Your task to perform on an android device: set the stopwatch Image 0: 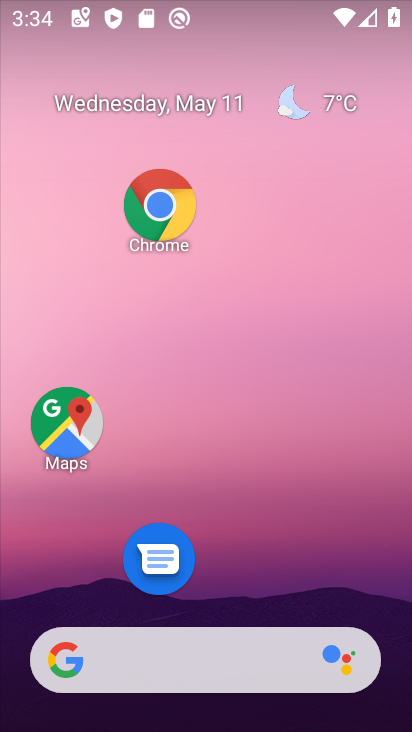
Step 0: drag from (237, 505) to (285, 229)
Your task to perform on an android device: set the stopwatch Image 1: 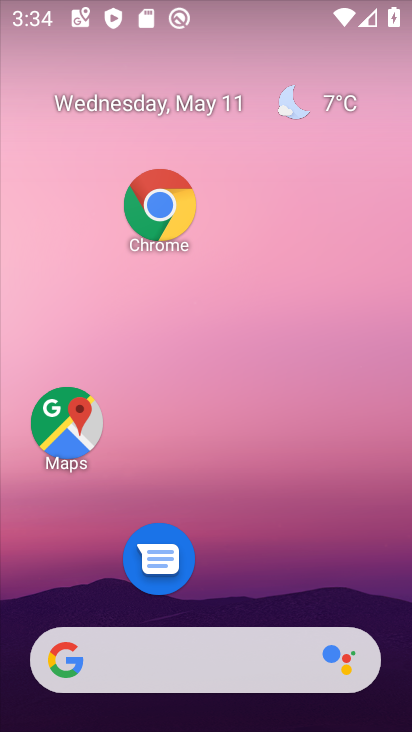
Step 1: drag from (214, 642) to (273, 144)
Your task to perform on an android device: set the stopwatch Image 2: 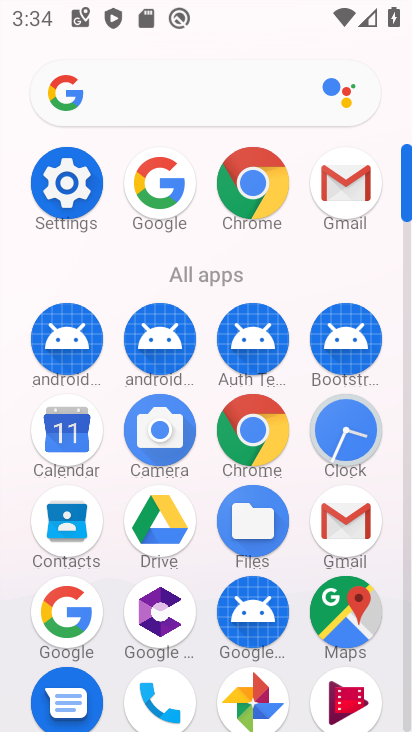
Step 2: click (348, 421)
Your task to perform on an android device: set the stopwatch Image 3: 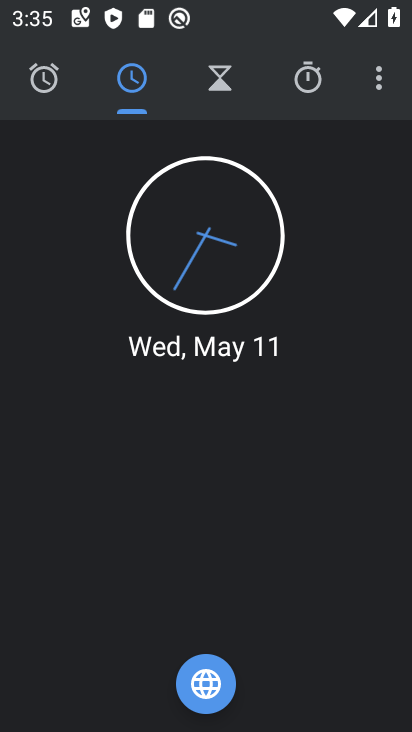
Step 3: click (308, 84)
Your task to perform on an android device: set the stopwatch Image 4: 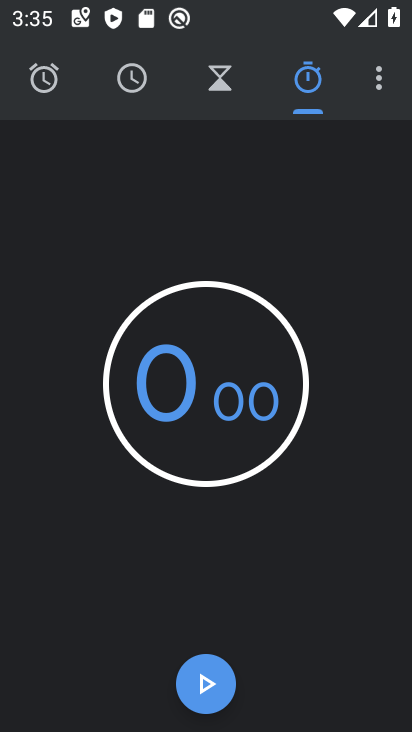
Step 4: click (233, 443)
Your task to perform on an android device: set the stopwatch Image 5: 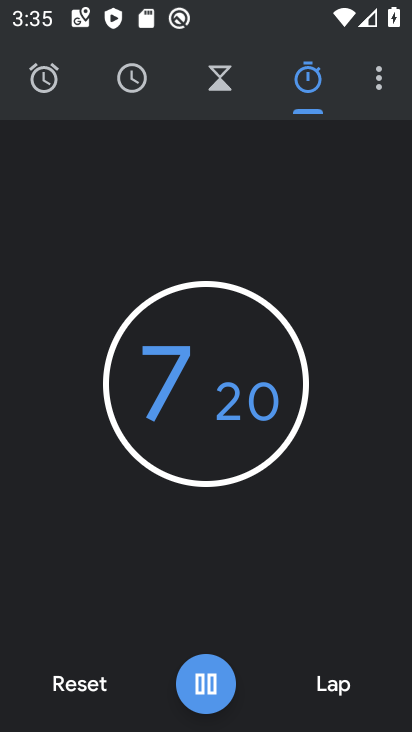
Step 5: task complete